Your task to perform on an android device: change alarm snooze length Image 0: 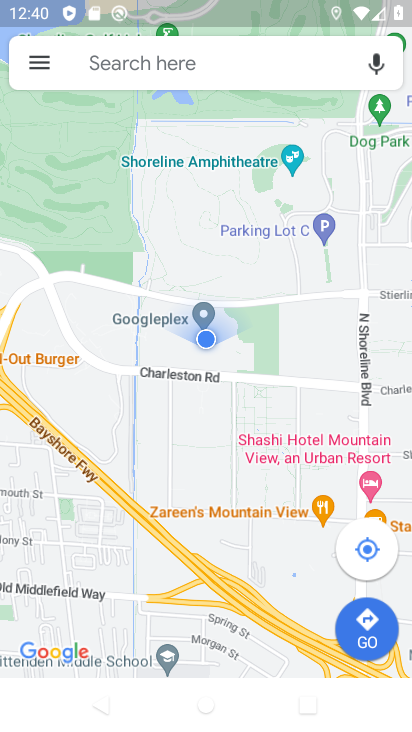
Step 0: press home button
Your task to perform on an android device: change alarm snooze length Image 1: 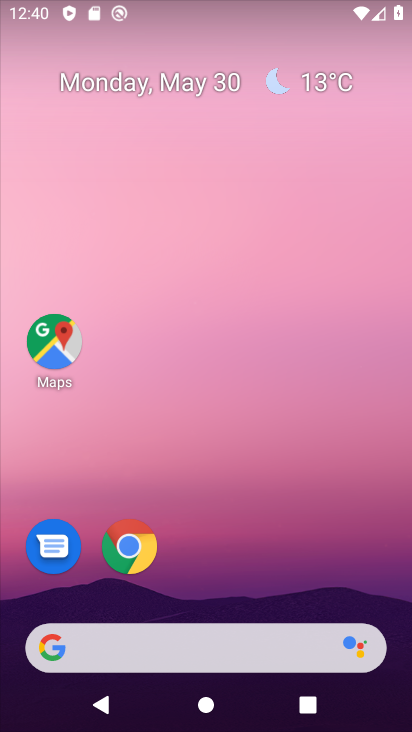
Step 1: drag from (221, 616) to (288, 16)
Your task to perform on an android device: change alarm snooze length Image 2: 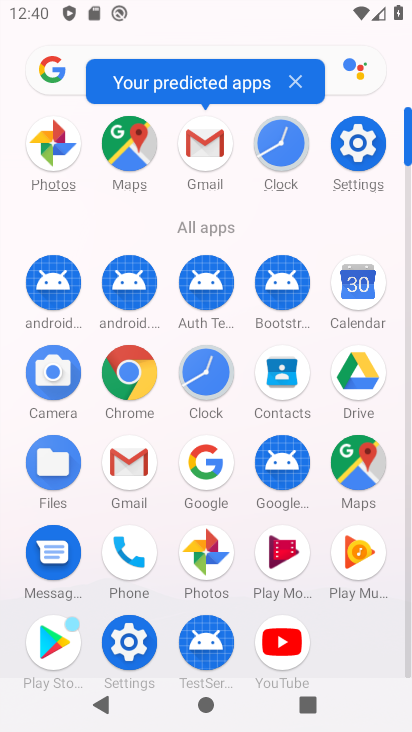
Step 2: click (288, 151)
Your task to perform on an android device: change alarm snooze length Image 3: 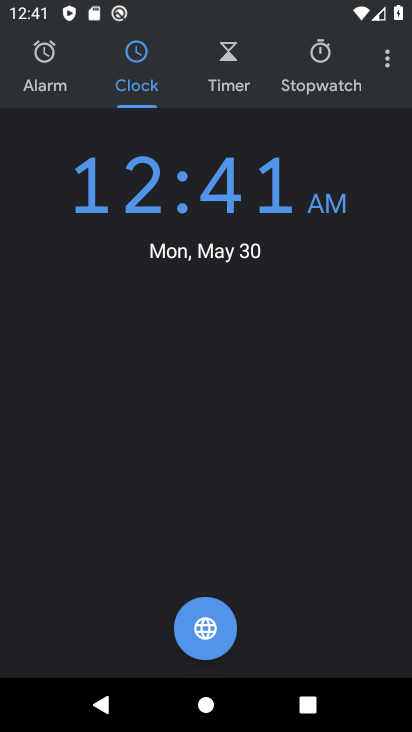
Step 3: click (382, 64)
Your task to perform on an android device: change alarm snooze length Image 4: 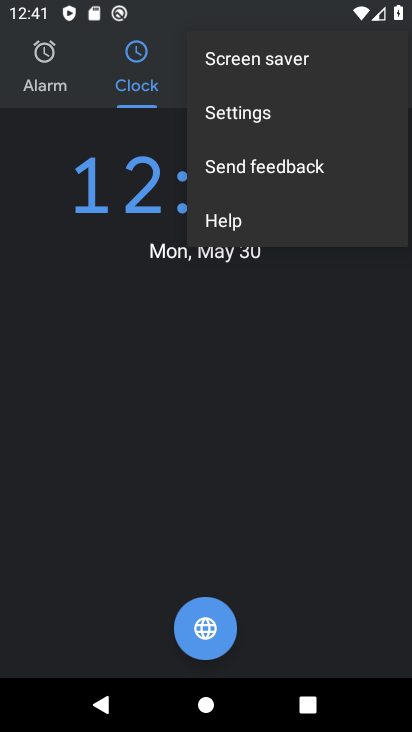
Step 4: click (263, 108)
Your task to perform on an android device: change alarm snooze length Image 5: 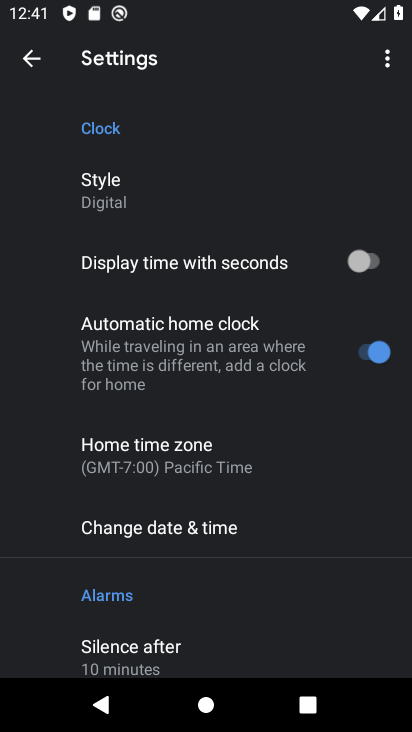
Step 5: drag from (300, 589) to (349, 167)
Your task to perform on an android device: change alarm snooze length Image 6: 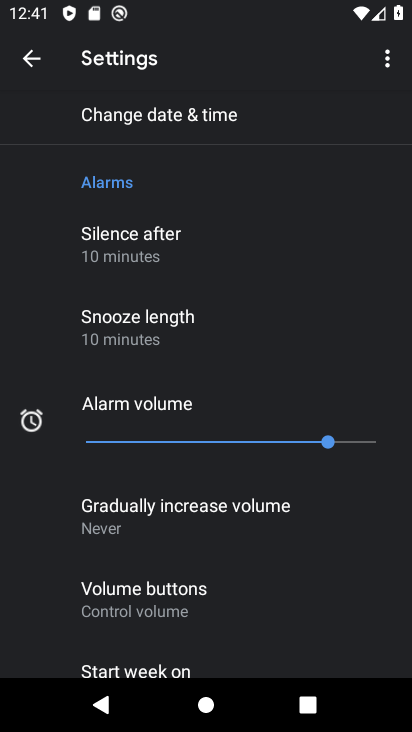
Step 6: click (131, 320)
Your task to perform on an android device: change alarm snooze length Image 7: 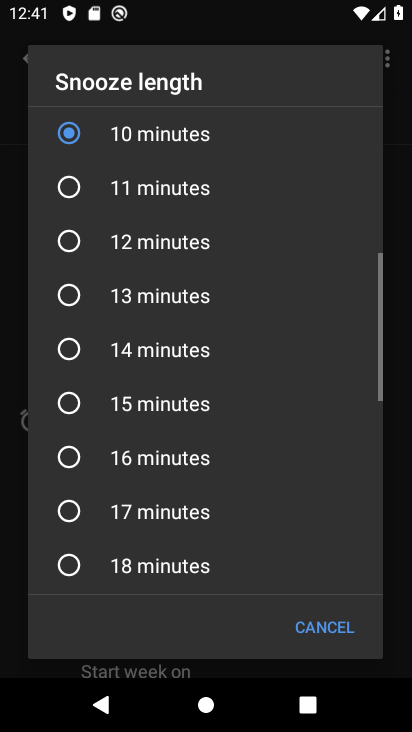
Step 7: click (65, 457)
Your task to perform on an android device: change alarm snooze length Image 8: 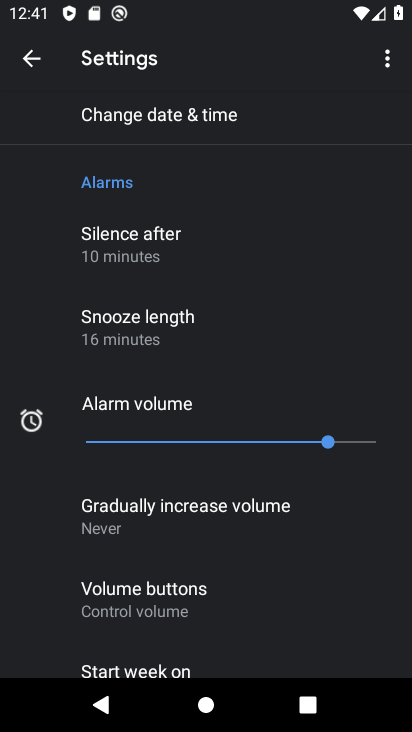
Step 8: task complete